Your task to perform on an android device: turn off sleep mode Image 0: 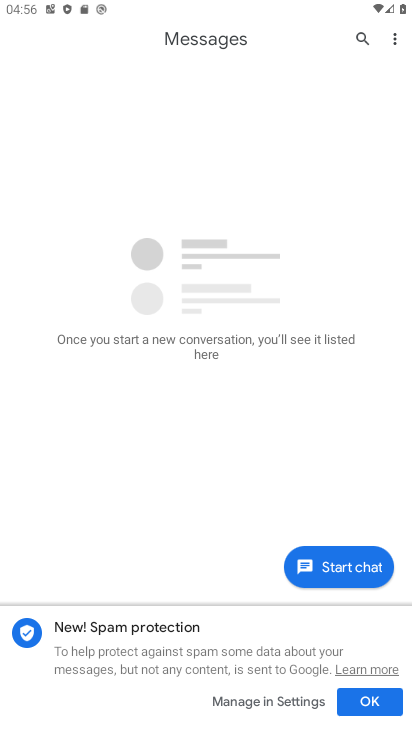
Step 0: press home button
Your task to perform on an android device: turn off sleep mode Image 1: 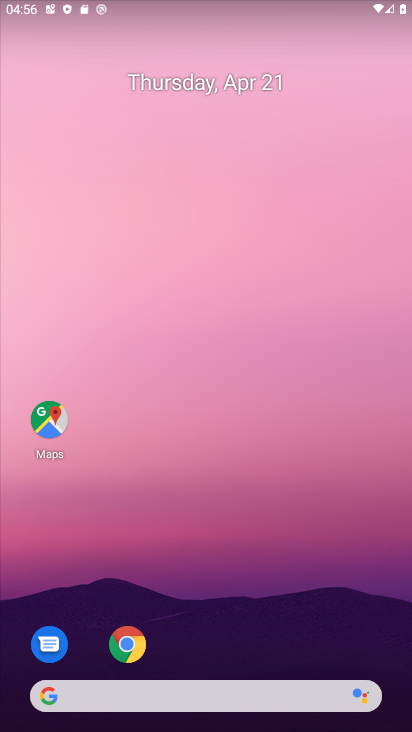
Step 1: drag from (298, 611) to (310, 192)
Your task to perform on an android device: turn off sleep mode Image 2: 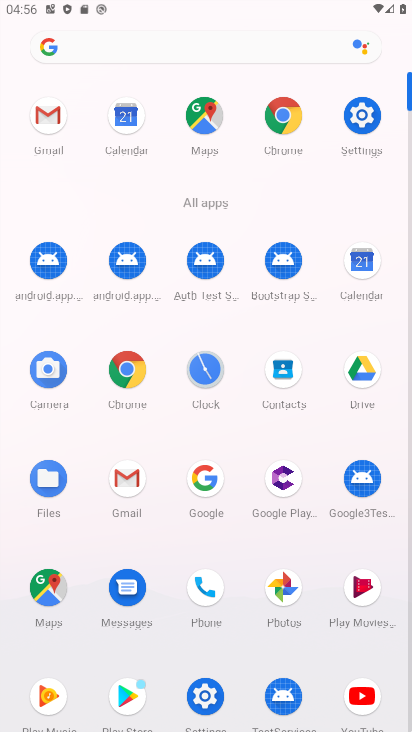
Step 2: click (204, 687)
Your task to perform on an android device: turn off sleep mode Image 3: 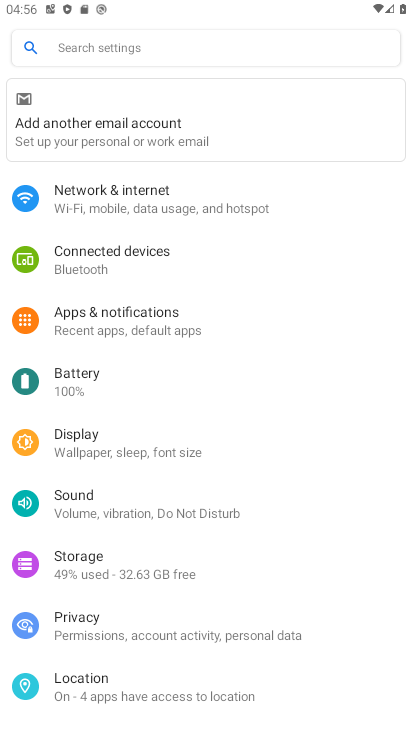
Step 3: click (154, 446)
Your task to perform on an android device: turn off sleep mode Image 4: 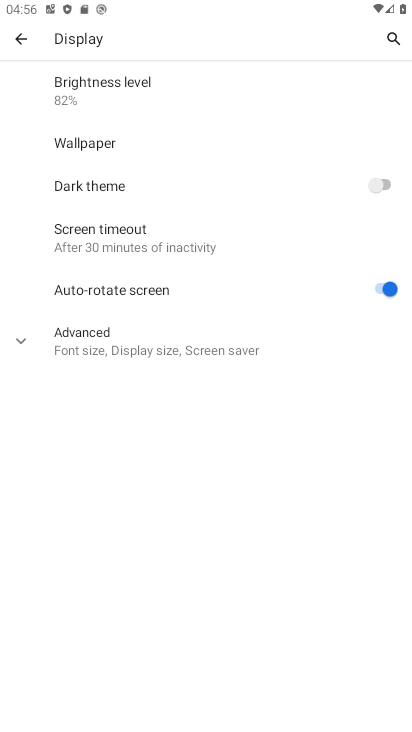
Step 4: click (134, 230)
Your task to perform on an android device: turn off sleep mode Image 5: 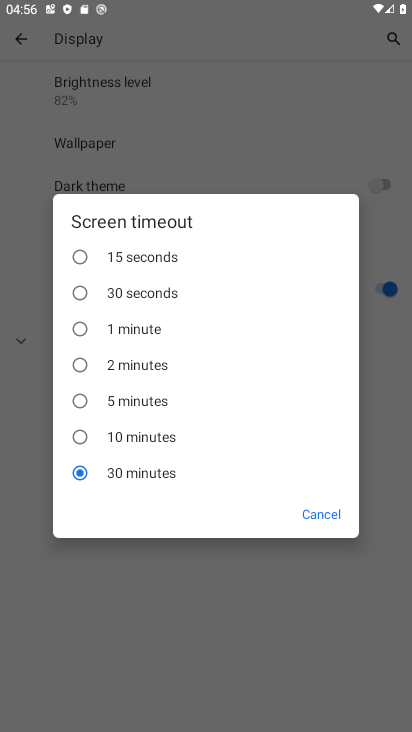
Step 5: task complete